Your task to perform on an android device: Go to battery settings Image 0: 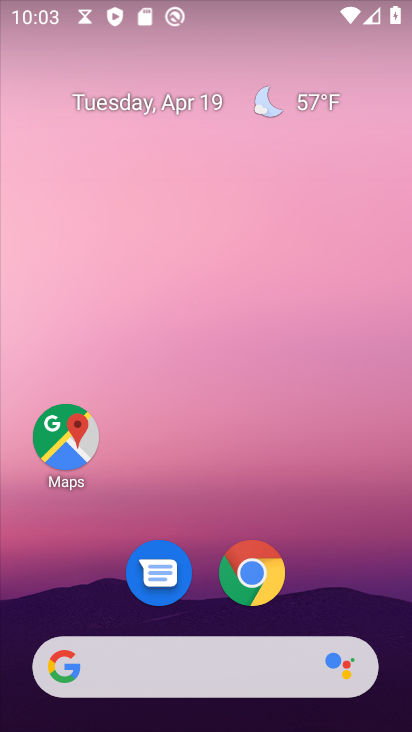
Step 0: drag from (324, 606) to (319, 45)
Your task to perform on an android device: Go to battery settings Image 1: 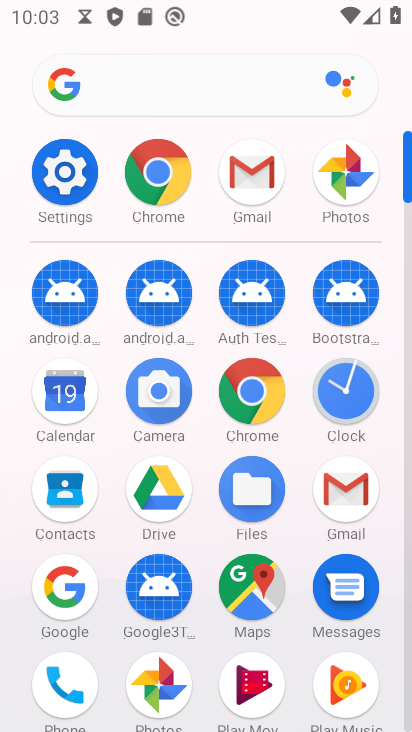
Step 1: click (62, 174)
Your task to perform on an android device: Go to battery settings Image 2: 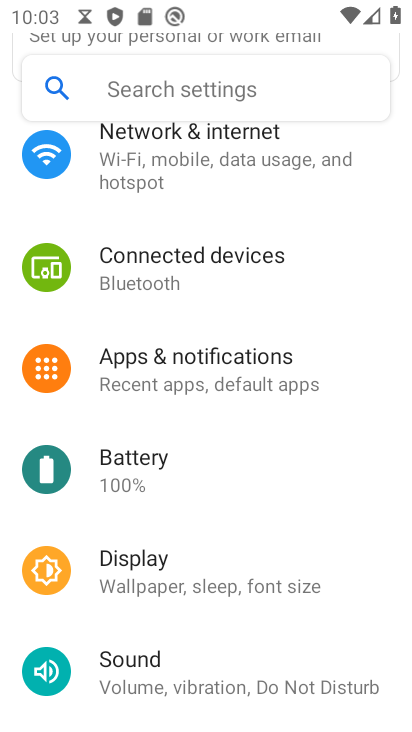
Step 2: click (127, 465)
Your task to perform on an android device: Go to battery settings Image 3: 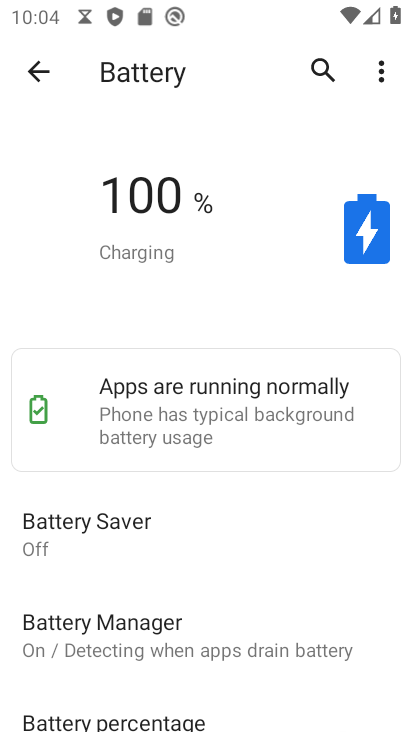
Step 3: task complete